Your task to perform on an android device: make emails show in primary in the gmail app Image 0: 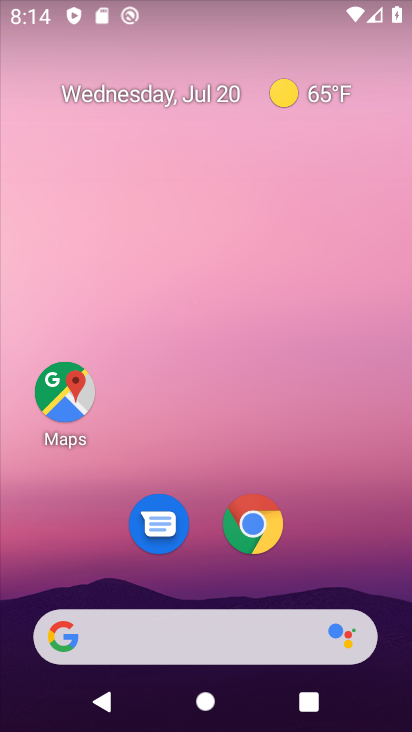
Step 0: drag from (338, 539) to (345, 30)
Your task to perform on an android device: make emails show in primary in the gmail app Image 1: 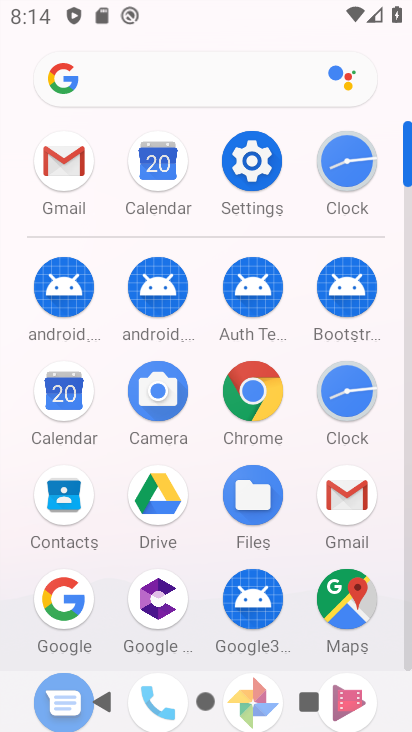
Step 1: click (65, 156)
Your task to perform on an android device: make emails show in primary in the gmail app Image 2: 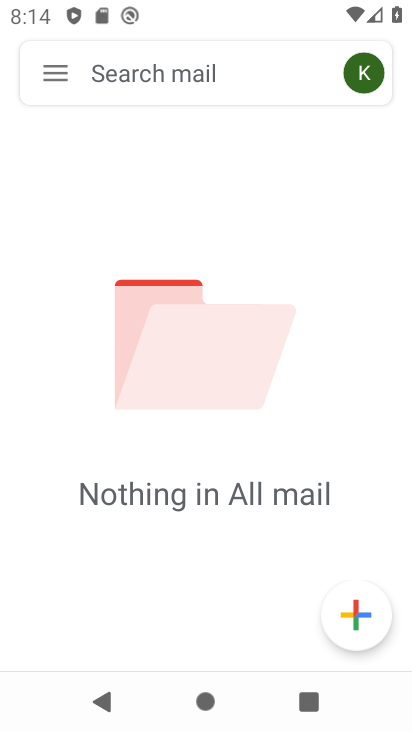
Step 2: click (55, 71)
Your task to perform on an android device: make emails show in primary in the gmail app Image 3: 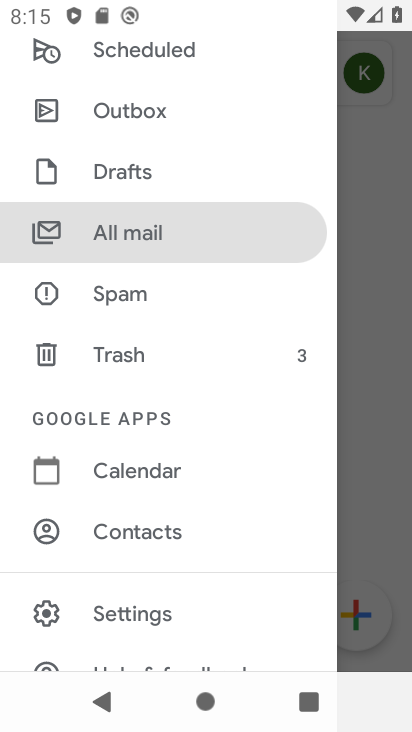
Step 3: click (142, 609)
Your task to perform on an android device: make emails show in primary in the gmail app Image 4: 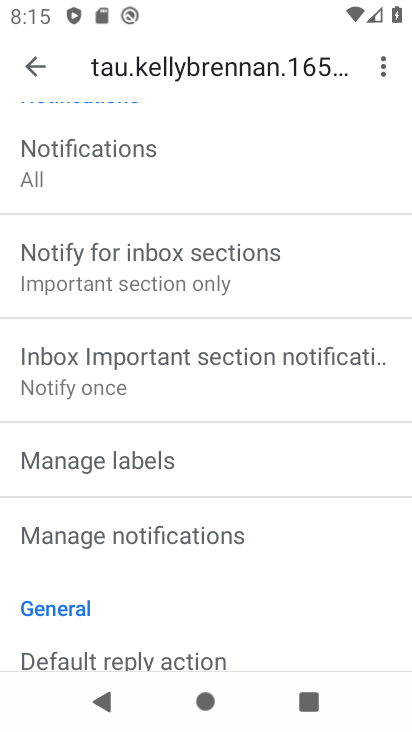
Step 4: drag from (222, 191) to (185, 566)
Your task to perform on an android device: make emails show in primary in the gmail app Image 5: 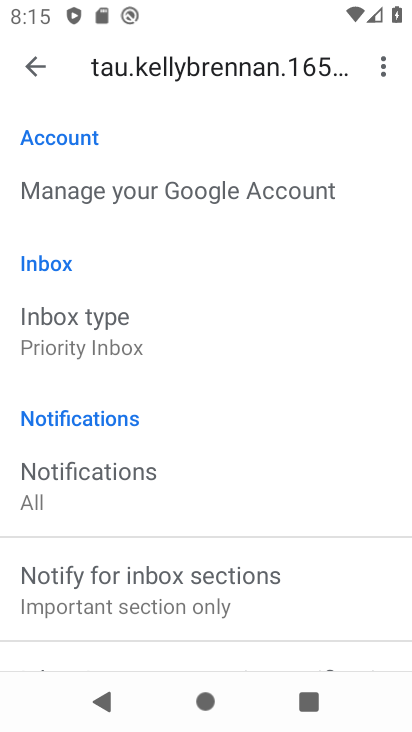
Step 5: click (106, 330)
Your task to perform on an android device: make emails show in primary in the gmail app Image 6: 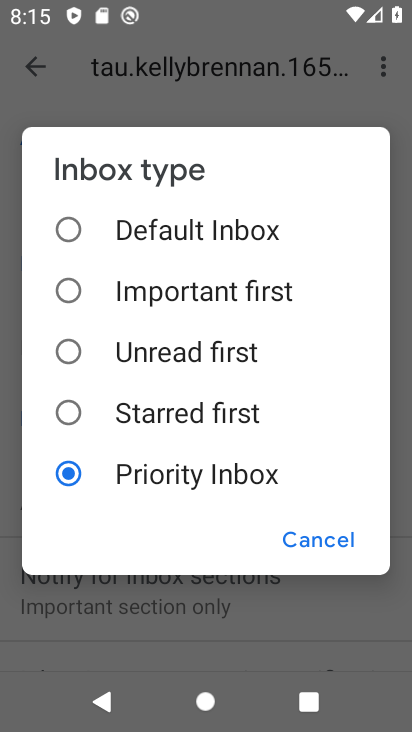
Step 6: click (65, 223)
Your task to perform on an android device: make emails show in primary in the gmail app Image 7: 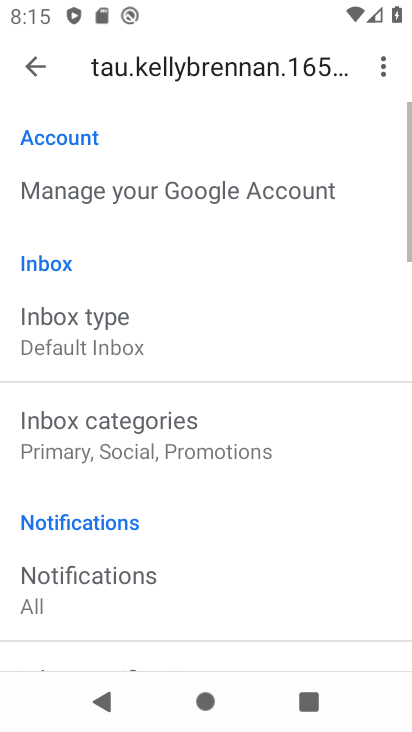
Step 7: click (68, 437)
Your task to perform on an android device: make emails show in primary in the gmail app Image 8: 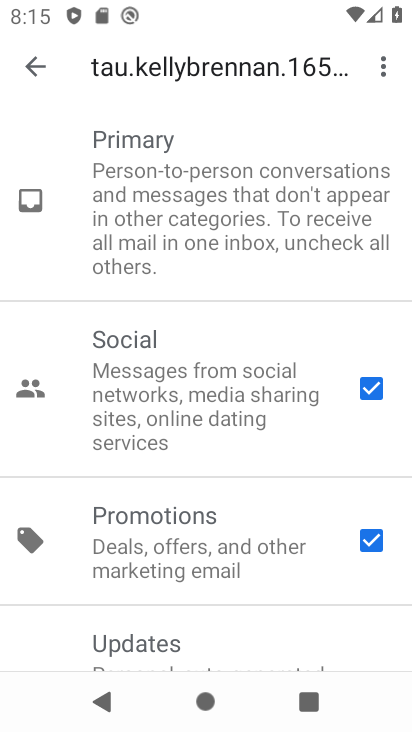
Step 8: click (365, 387)
Your task to perform on an android device: make emails show in primary in the gmail app Image 9: 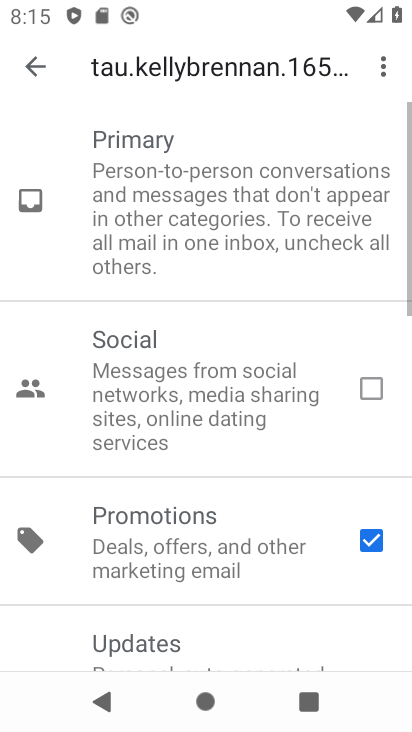
Step 9: click (372, 545)
Your task to perform on an android device: make emails show in primary in the gmail app Image 10: 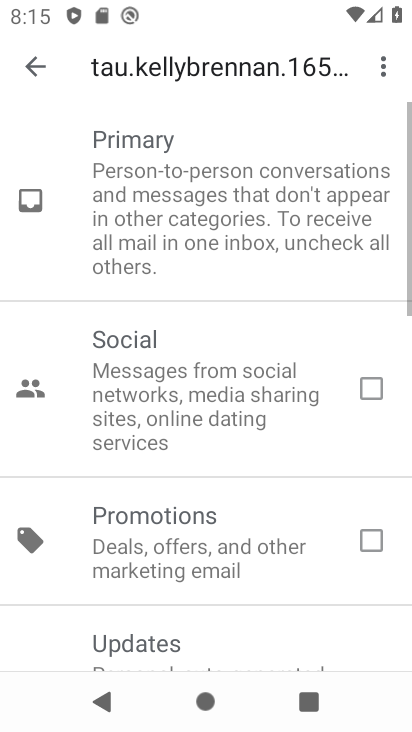
Step 10: click (32, 70)
Your task to perform on an android device: make emails show in primary in the gmail app Image 11: 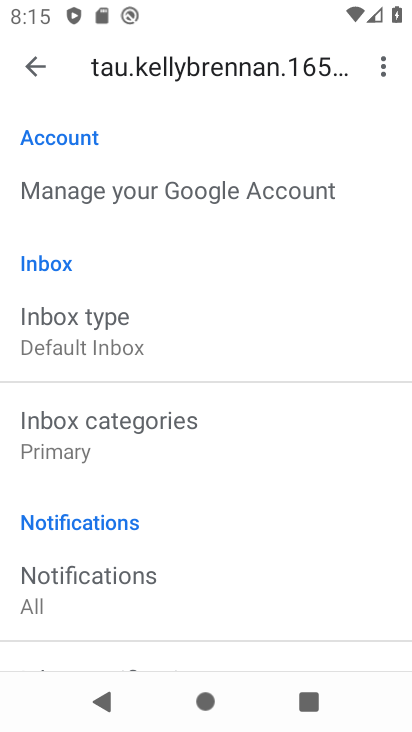
Step 11: task complete